Your task to perform on an android device: Search for pizza restaurants on Maps Image 0: 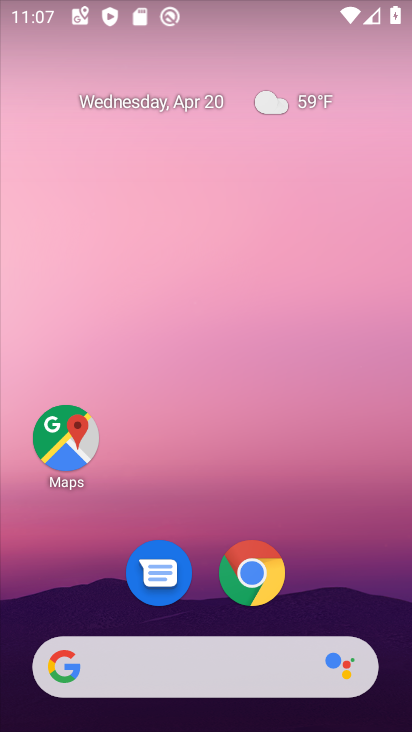
Step 0: click (63, 441)
Your task to perform on an android device: Search for pizza restaurants on Maps Image 1: 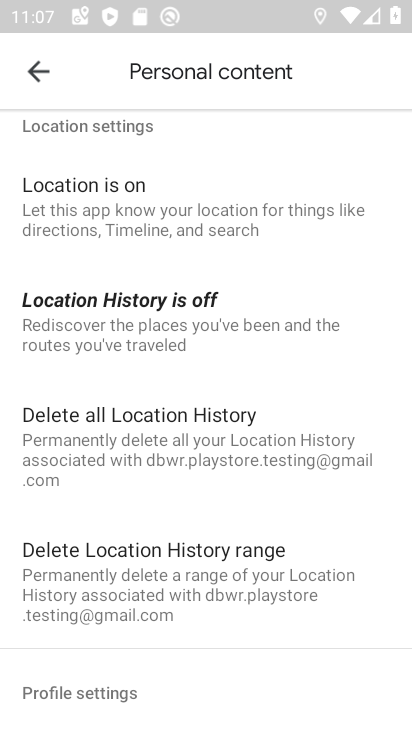
Step 1: click (26, 71)
Your task to perform on an android device: Search for pizza restaurants on Maps Image 2: 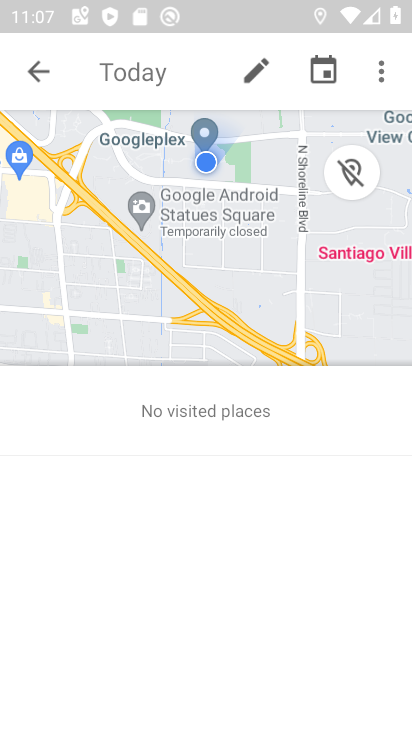
Step 2: click (40, 67)
Your task to perform on an android device: Search for pizza restaurants on Maps Image 3: 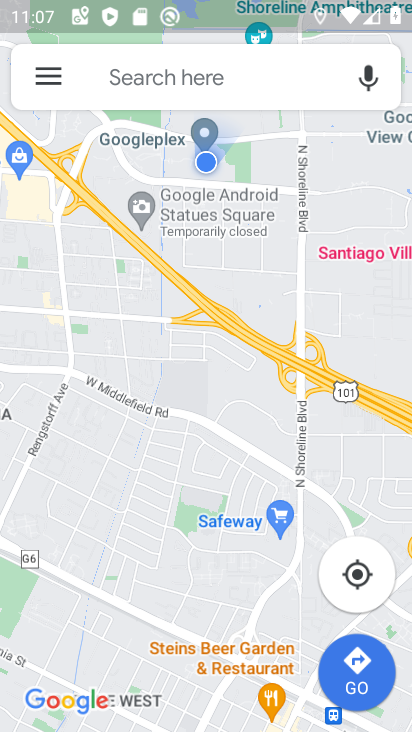
Step 3: click (136, 75)
Your task to perform on an android device: Search for pizza restaurants on Maps Image 4: 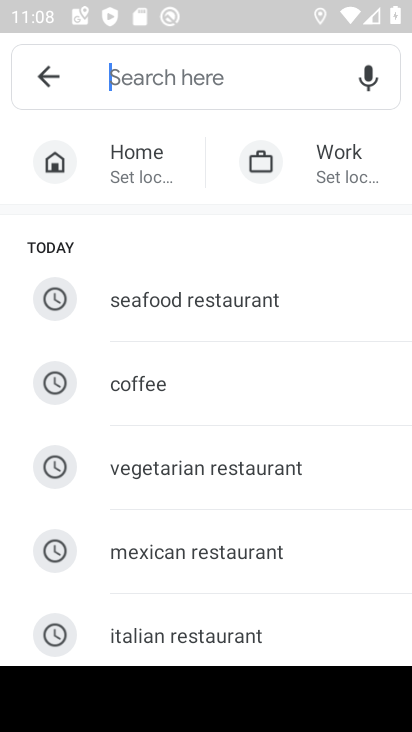
Step 4: type "pizza restaurant"
Your task to perform on an android device: Search for pizza restaurants on Maps Image 5: 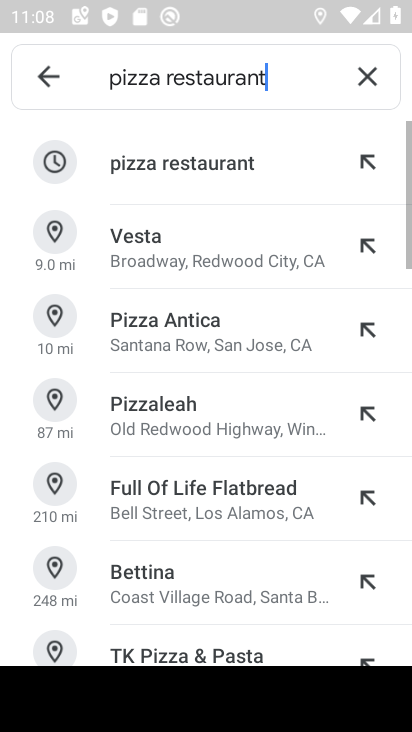
Step 5: click (104, 165)
Your task to perform on an android device: Search for pizza restaurants on Maps Image 6: 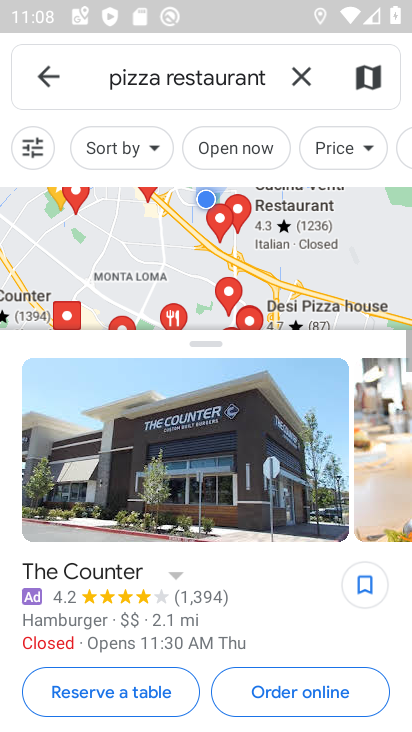
Step 6: task complete